Your task to perform on an android device: Go to Yahoo.com Image 0: 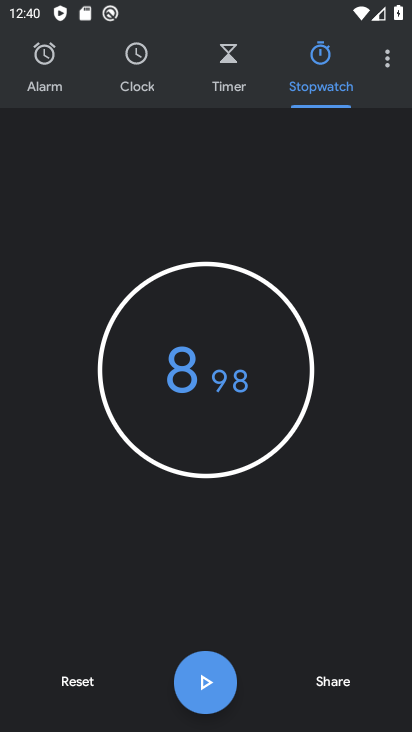
Step 0: press home button
Your task to perform on an android device: Go to Yahoo.com Image 1: 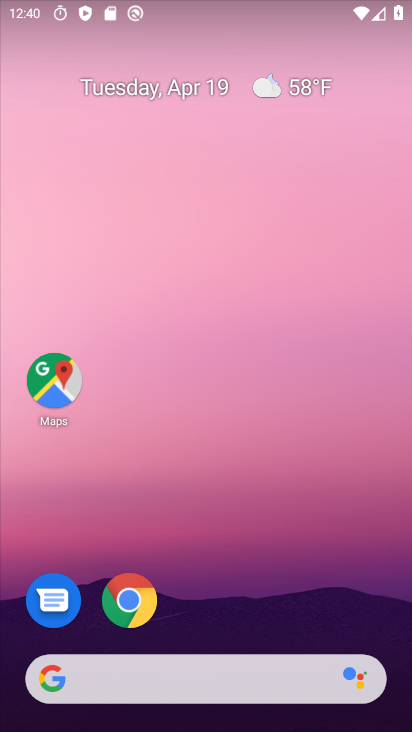
Step 1: click (150, 593)
Your task to perform on an android device: Go to Yahoo.com Image 2: 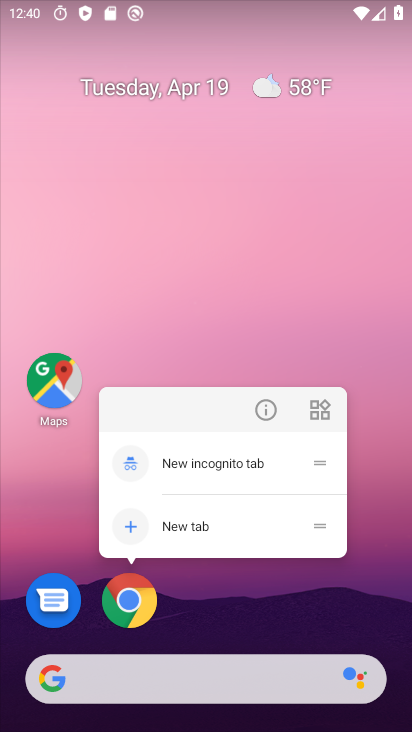
Step 2: click (150, 593)
Your task to perform on an android device: Go to Yahoo.com Image 3: 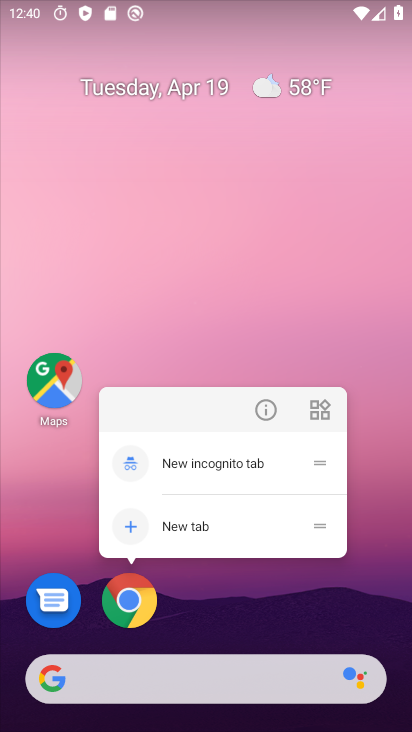
Step 3: click (141, 597)
Your task to perform on an android device: Go to Yahoo.com Image 4: 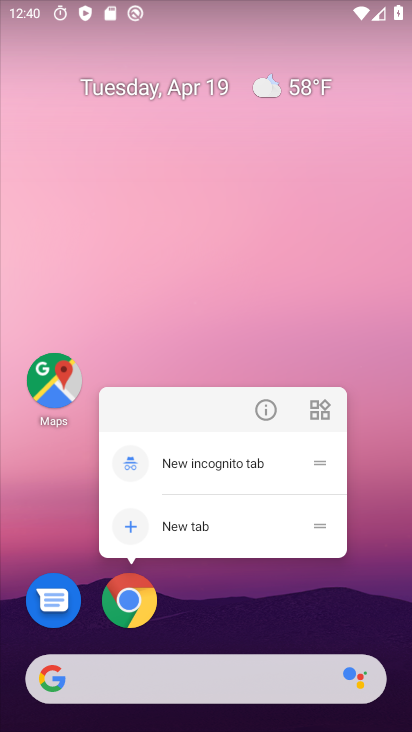
Step 4: click (165, 590)
Your task to perform on an android device: Go to Yahoo.com Image 5: 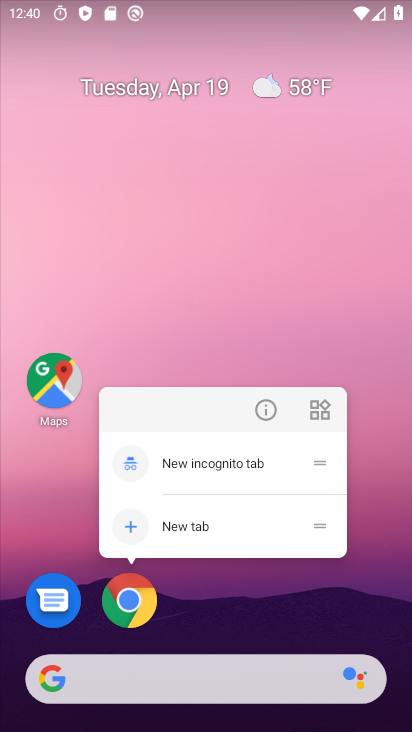
Step 5: drag from (254, 698) to (250, 190)
Your task to perform on an android device: Go to Yahoo.com Image 6: 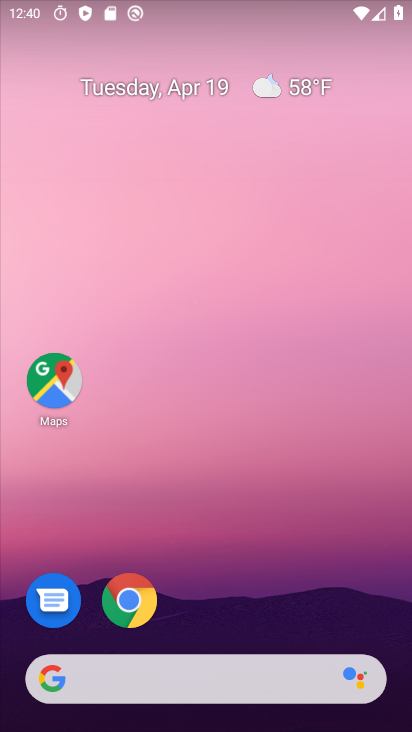
Step 6: drag from (212, 689) to (254, 118)
Your task to perform on an android device: Go to Yahoo.com Image 7: 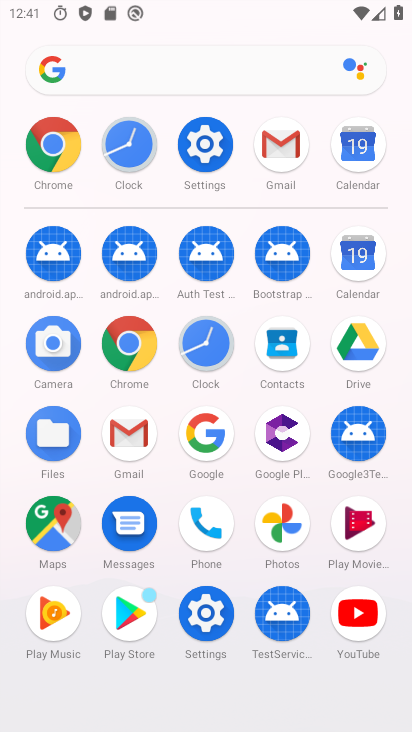
Step 7: click (131, 354)
Your task to perform on an android device: Go to Yahoo.com Image 8: 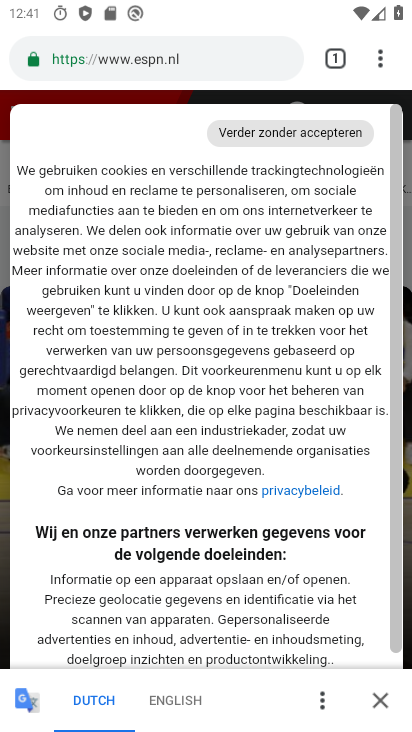
Step 8: click (377, 697)
Your task to perform on an android device: Go to Yahoo.com Image 9: 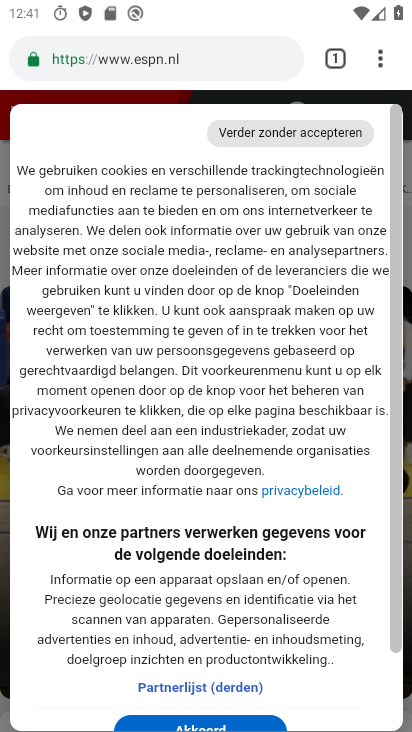
Step 9: click (349, 59)
Your task to perform on an android device: Go to Yahoo.com Image 10: 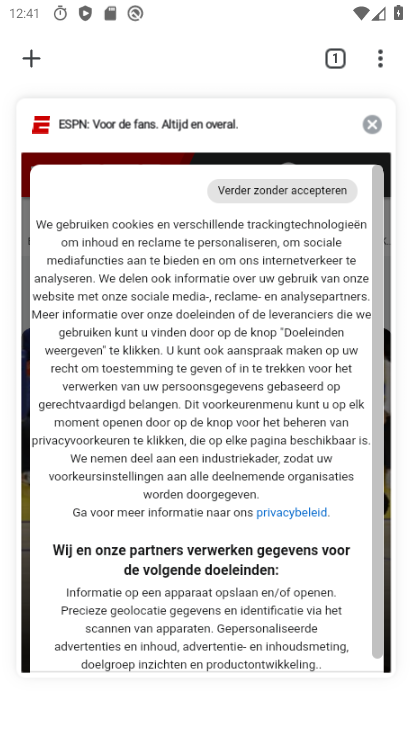
Step 10: click (375, 124)
Your task to perform on an android device: Go to Yahoo.com Image 11: 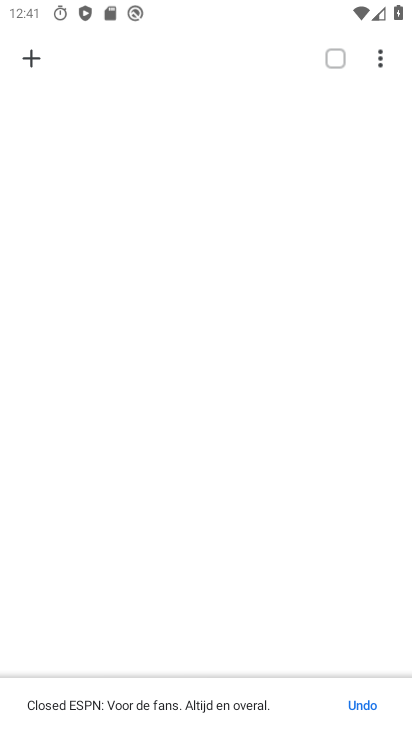
Step 11: click (27, 79)
Your task to perform on an android device: Go to Yahoo.com Image 12: 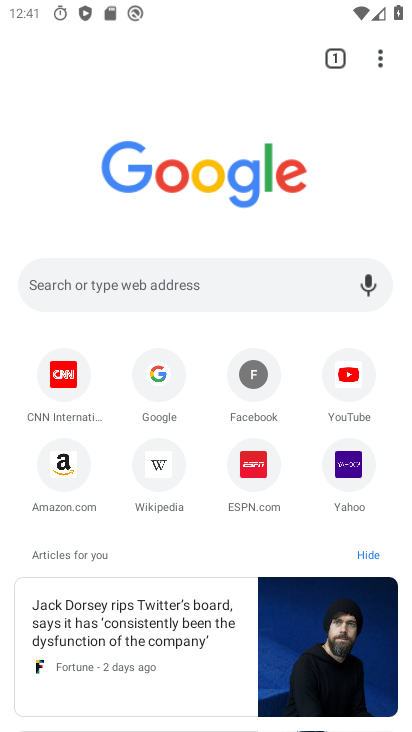
Step 12: click (346, 466)
Your task to perform on an android device: Go to Yahoo.com Image 13: 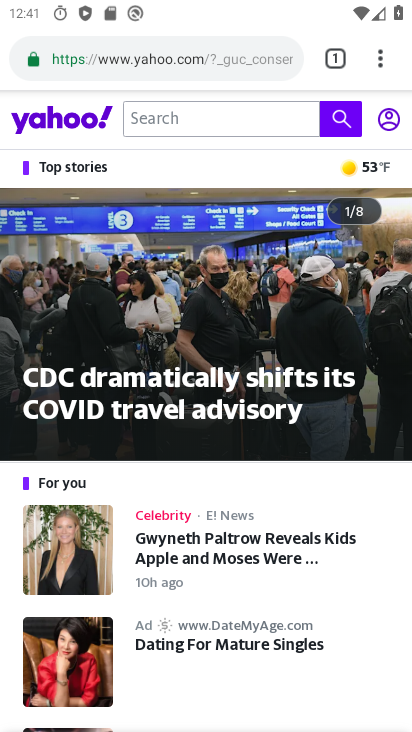
Step 13: task complete